Your task to perform on an android device: Show the shopping cart on target. Add "logitech g502" to the cart on target, then select checkout. Image 0: 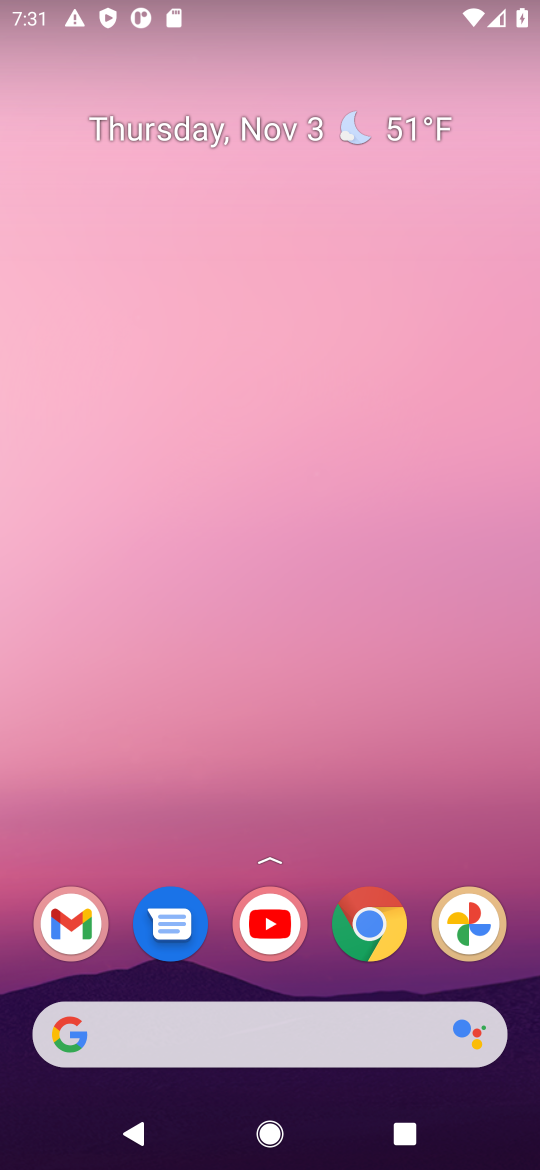
Step 0: drag from (222, 979) to (275, 70)
Your task to perform on an android device: Show the shopping cart on target. Add "logitech g502" to the cart on target, then select checkout. Image 1: 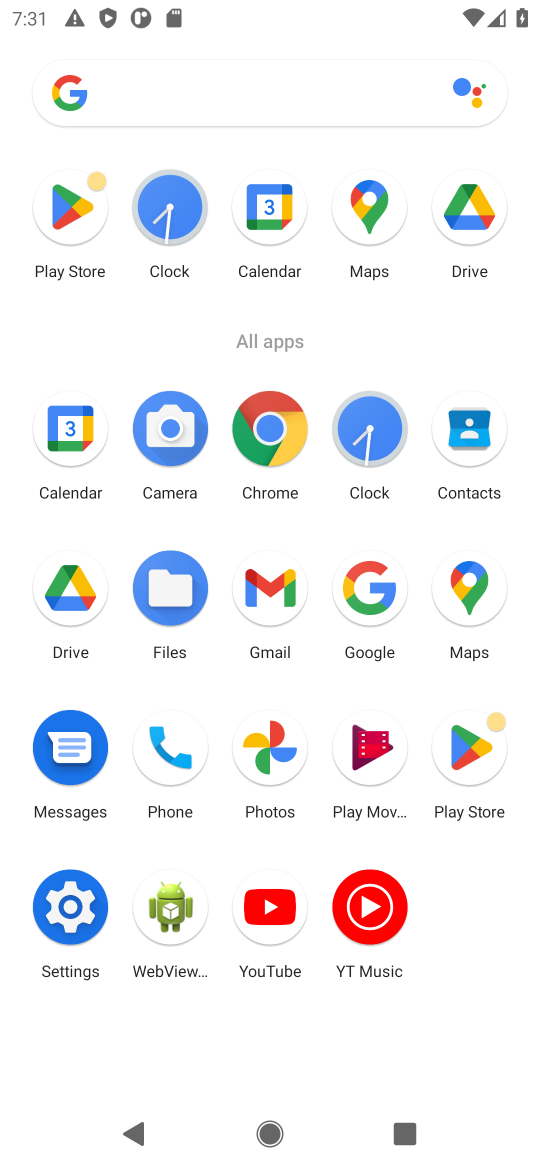
Step 1: click (375, 594)
Your task to perform on an android device: Show the shopping cart on target. Add "logitech g502" to the cart on target, then select checkout. Image 2: 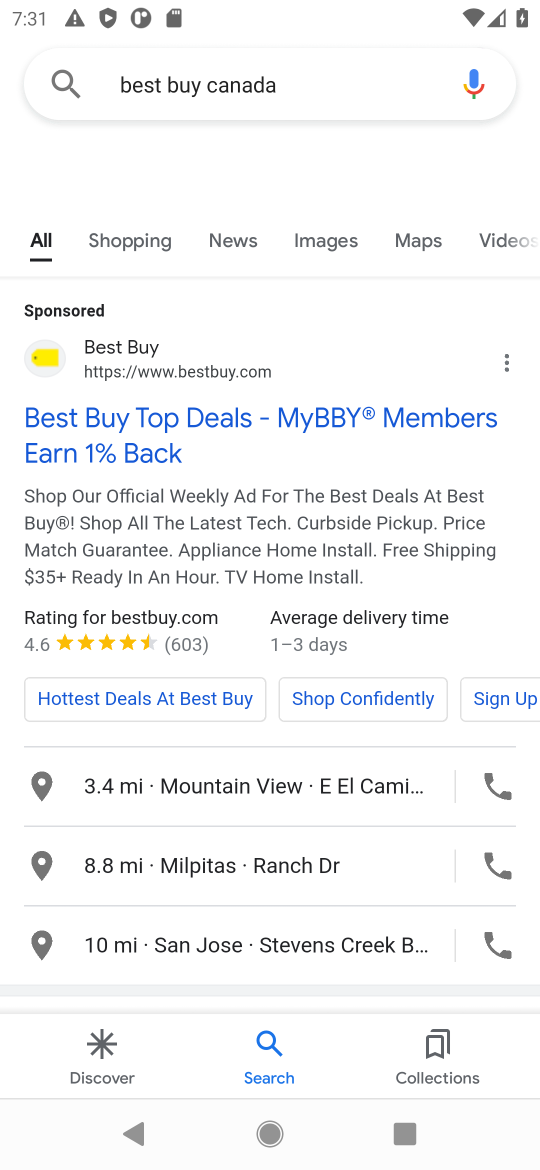
Step 2: click (273, 81)
Your task to perform on an android device: Show the shopping cart on target. Add "logitech g502" to the cart on target, then select checkout. Image 3: 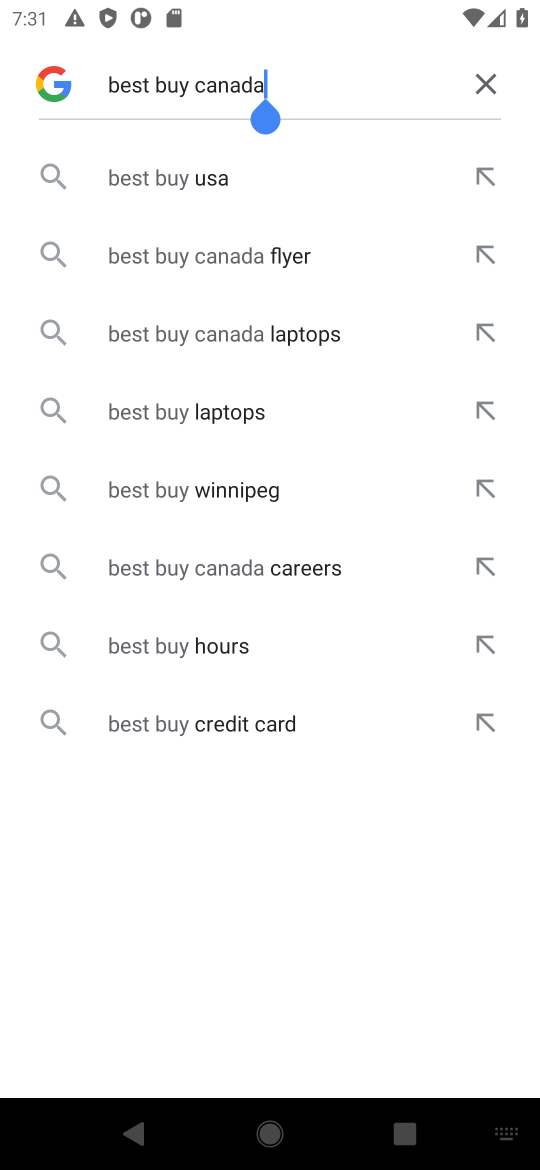
Step 3: click (486, 85)
Your task to perform on an android device: Show the shopping cart on target. Add "logitech g502" to the cart on target, then select checkout. Image 4: 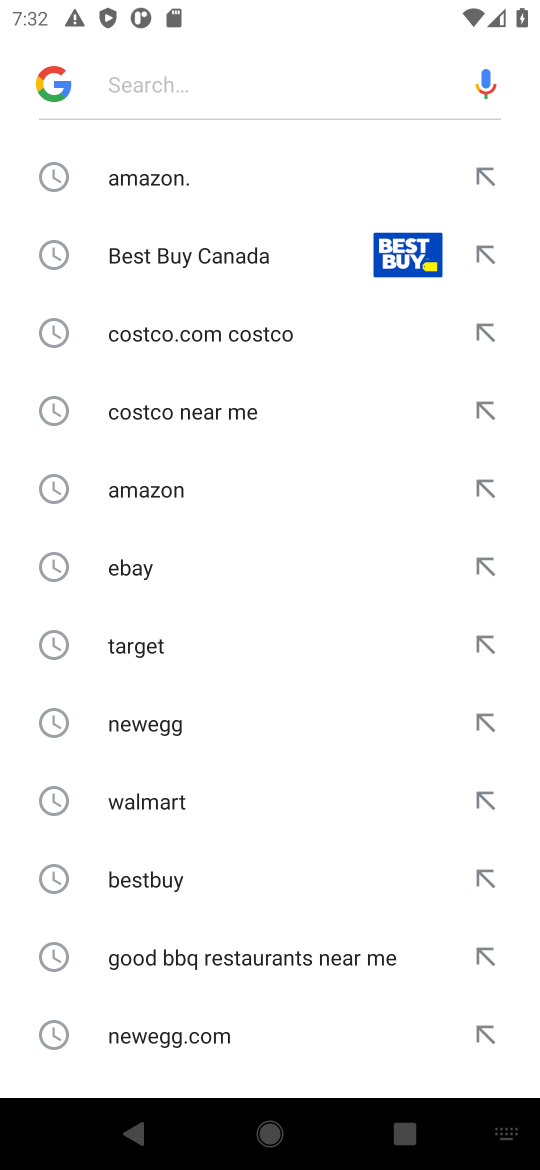
Step 4: click (217, 84)
Your task to perform on an android device: Show the shopping cart on target. Add "logitech g502" to the cart on target, then select checkout. Image 5: 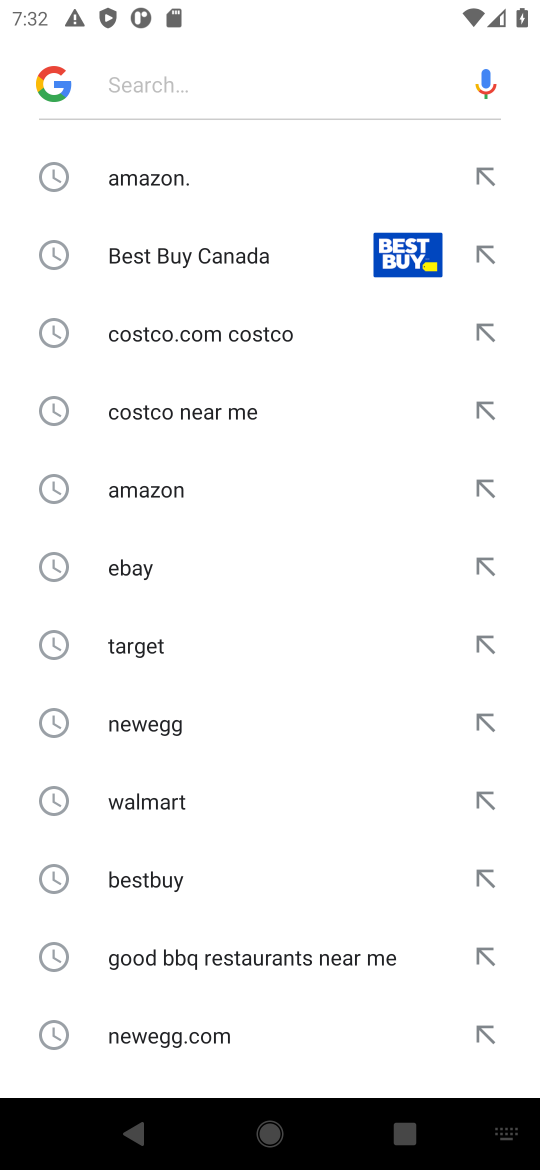
Step 5: type "target "
Your task to perform on an android device: Show the shopping cart on target. Add "logitech g502" to the cart on target, then select checkout. Image 6: 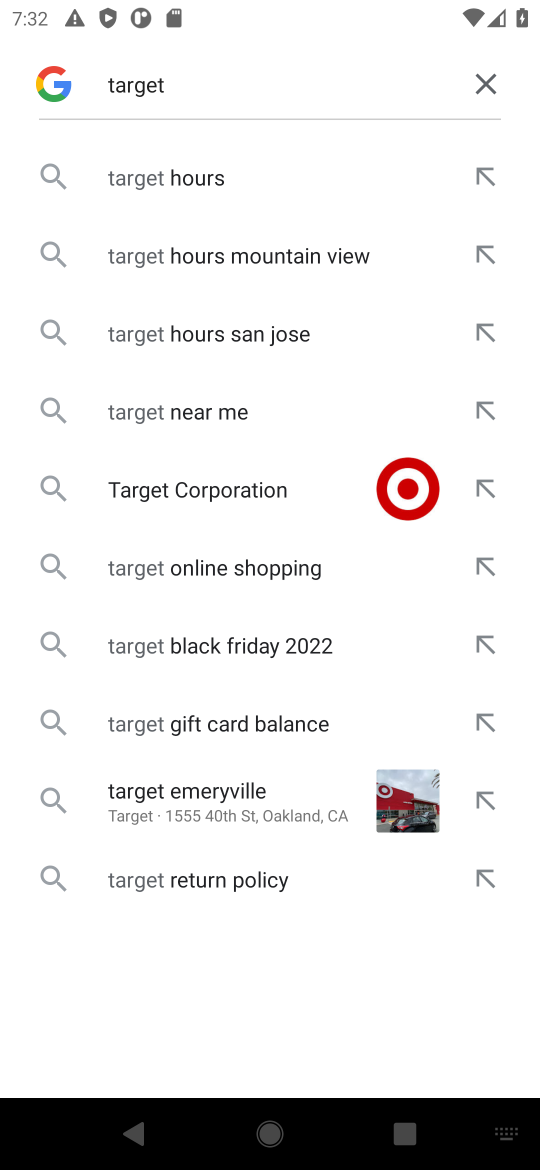
Step 6: click (156, 154)
Your task to perform on an android device: Show the shopping cart on target. Add "logitech g502" to the cart on target, then select checkout. Image 7: 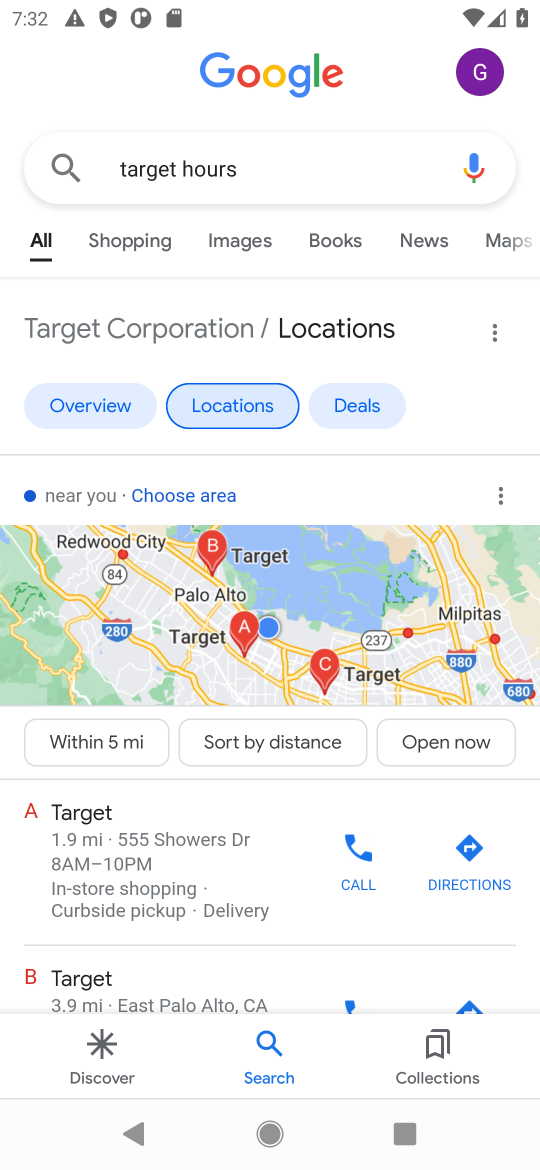
Step 7: drag from (259, 965) to (315, 121)
Your task to perform on an android device: Show the shopping cart on target. Add "logitech g502" to the cart on target, then select checkout. Image 8: 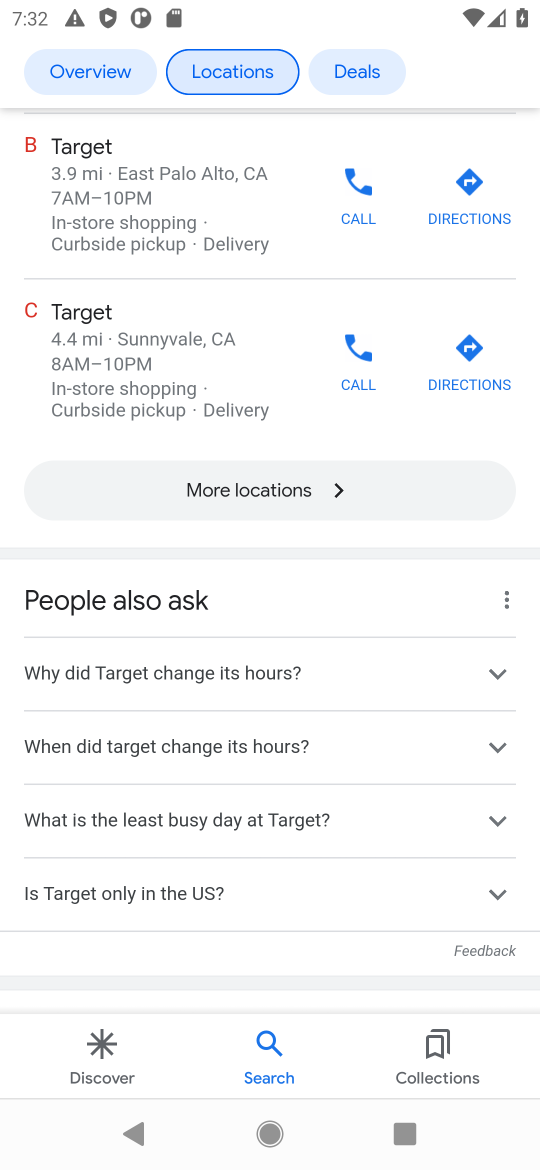
Step 8: drag from (220, 890) to (317, 164)
Your task to perform on an android device: Show the shopping cart on target. Add "logitech g502" to the cart on target, then select checkout. Image 9: 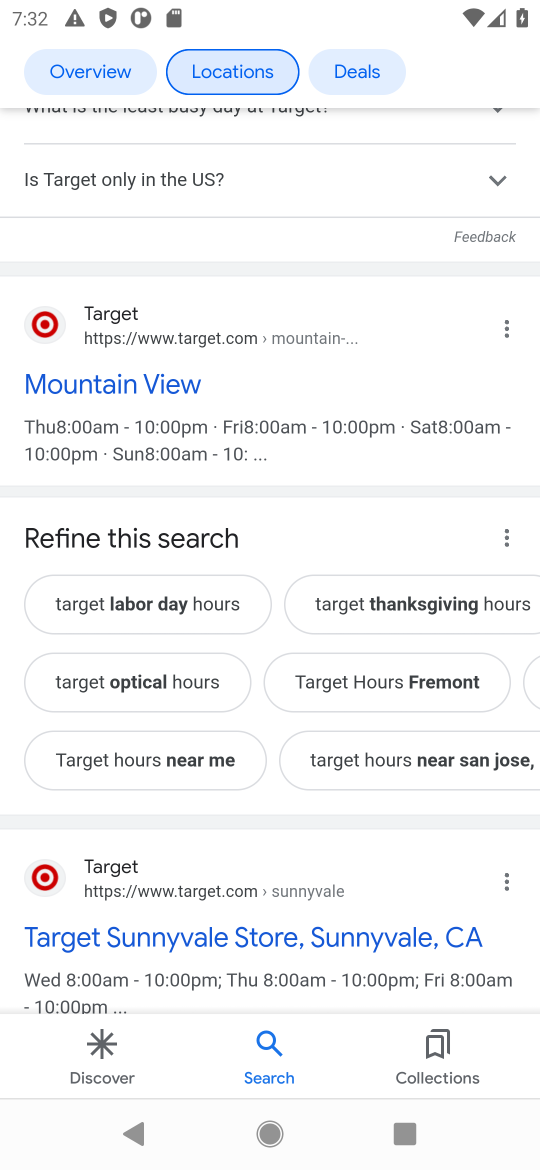
Step 9: click (43, 326)
Your task to perform on an android device: Show the shopping cart on target. Add "logitech g502" to the cart on target, then select checkout. Image 10: 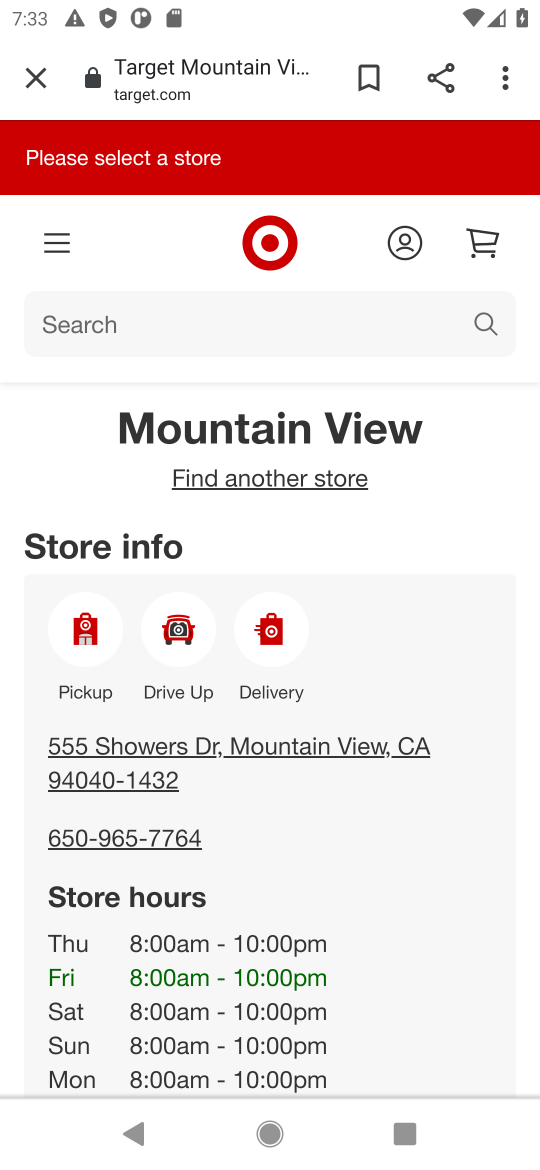
Step 10: click (199, 317)
Your task to perform on an android device: Show the shopping cart on target. Add "logitech g502" to the cart on target, then select checkout. Image 11: 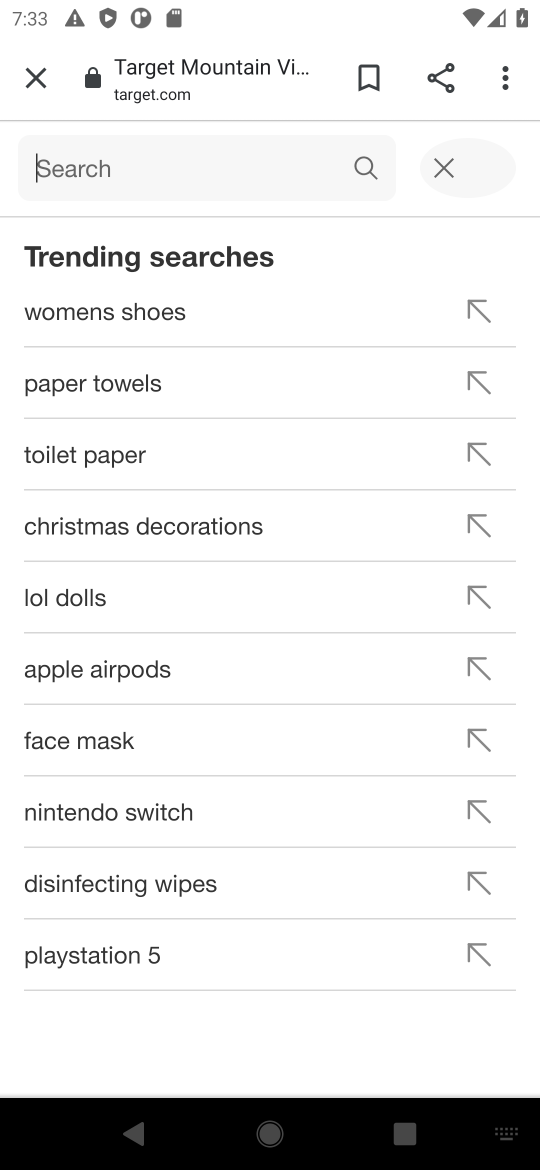
Step 11: type "logitech g502 "
Your task to perform on an android device: Show the shopping cart on target. Add "logitech g502" to the cart on target, then select checkout. Image 12: 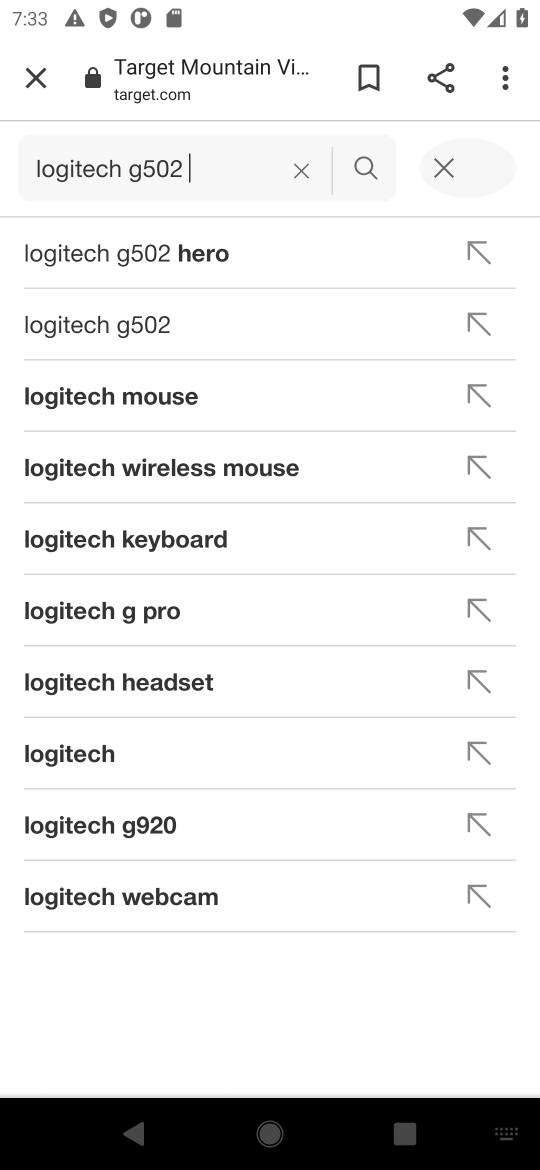
Step 12: click (125, 316)
Your task to perform on an android device: Show the shopping cart on target. Add "logitech g502" to the cart on target, then select checkout. Image 13: 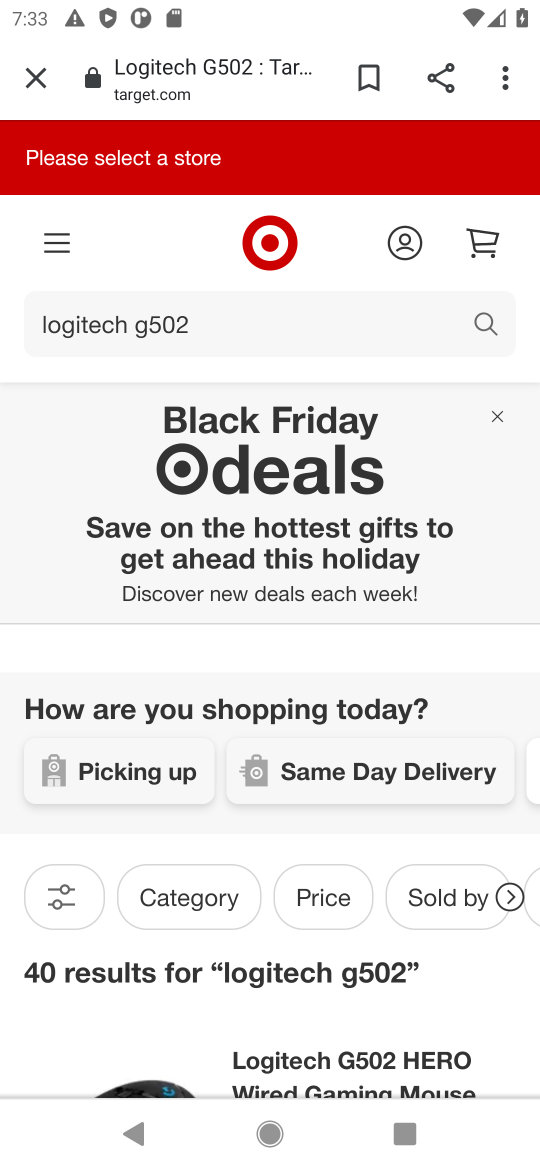
Step 13: drag from (236, 1056) to (324, 283)
Your task to perform on an android device: Show the shopping cart on target. Add "logitech g502" to the cart on target, then select checkout. Image 14: 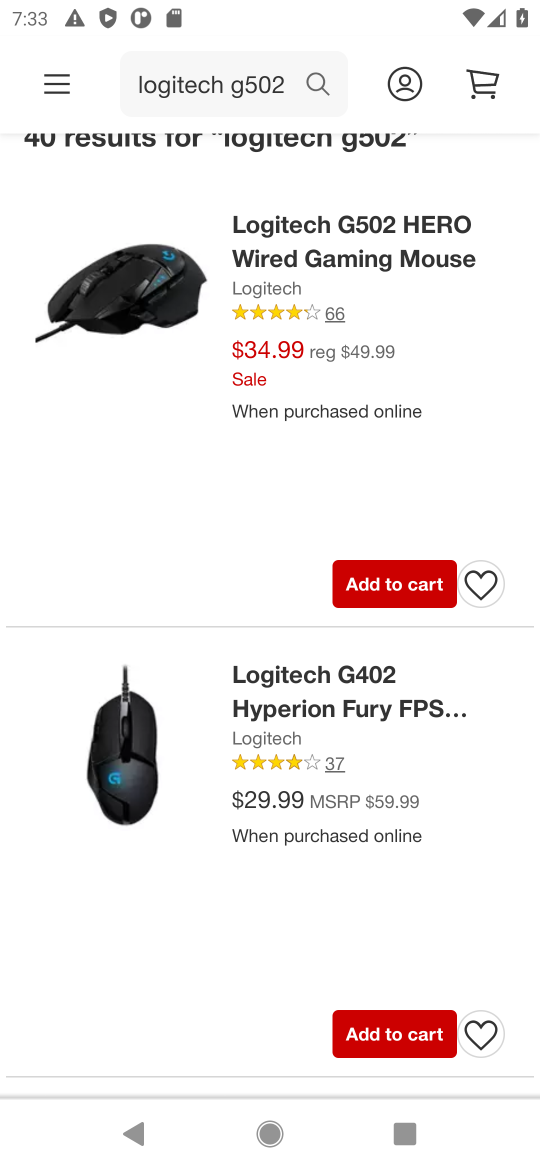
Step 14: drag from (237, 974) to (365, 1158)
Your task to perform on an android device: Show the shopping cart on target. Add "logitech g502" to the cart on target, then select checkout. Image 15: 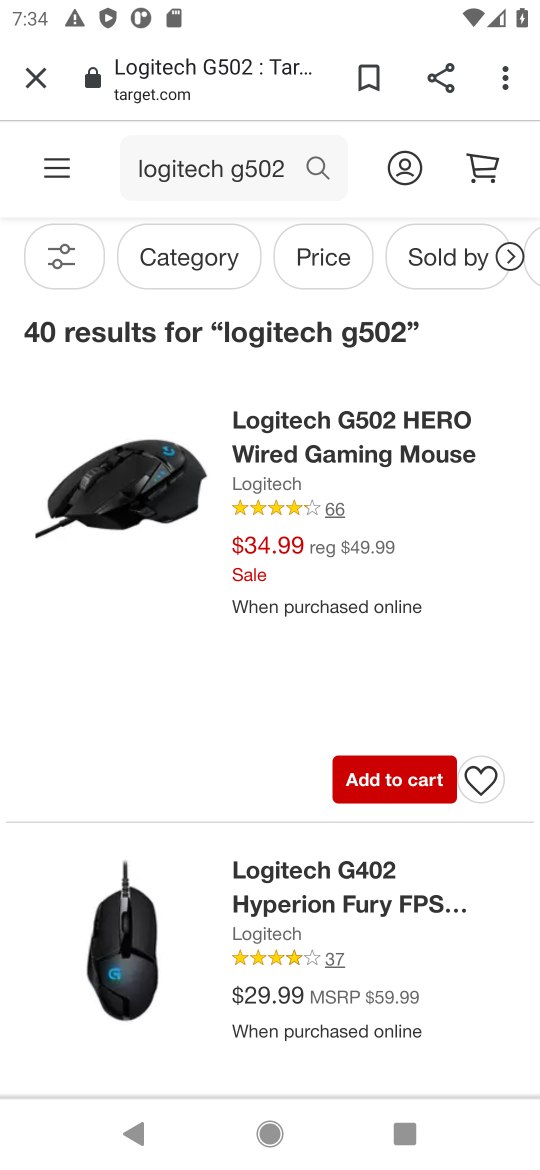
Step 15: drag from (357, 340) to (299, 1024)
Your task to perform on an android device: Show the shopping cart on target. Add "logitech g502" to the cart on target, then select checkout. Image 16: 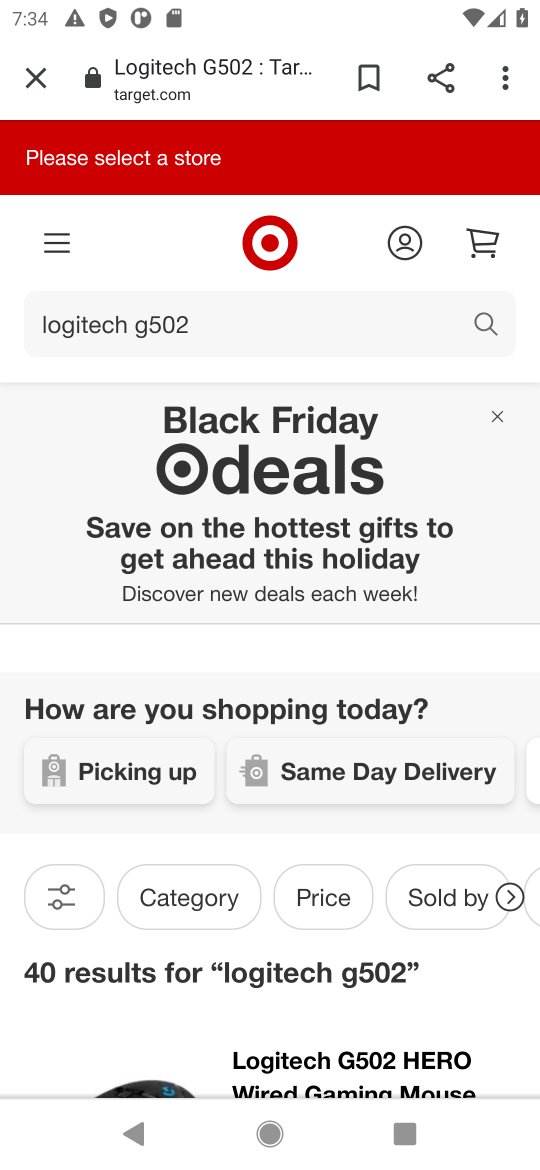
Step 16: drag from (330, 950) to (363, 401)
Your task to perform on an android device: Show the shopping cart on target. Add "logitech g502" to the cart on target, then select checkout. Image 17: 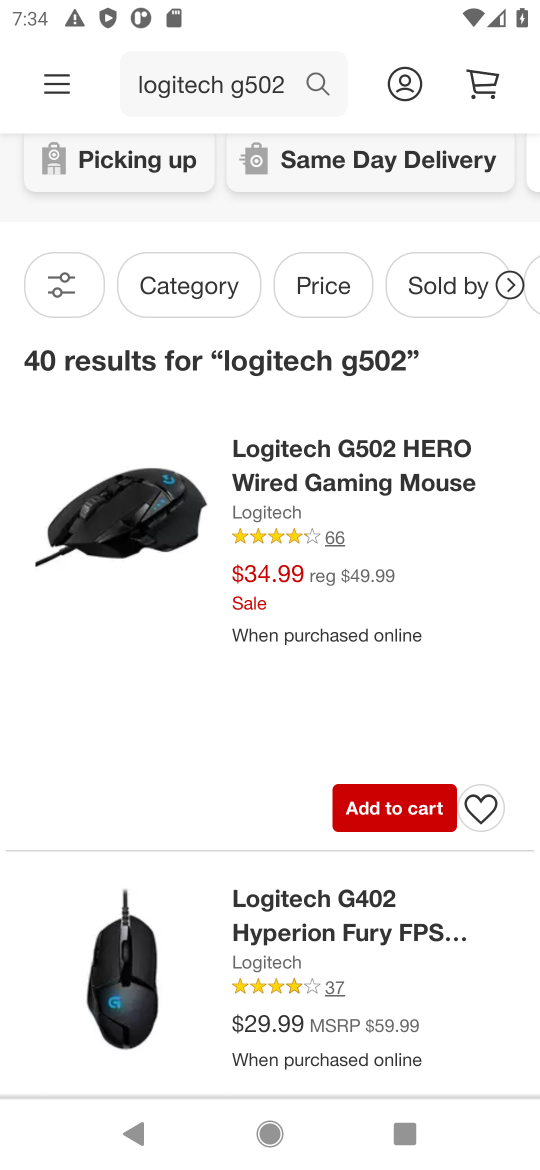
Step 17: click (410, 809)
Your task to perform on an android device: Show the shopping cart on target. Add "logitech g502" to the cart on target, then select checkout. Image 18: 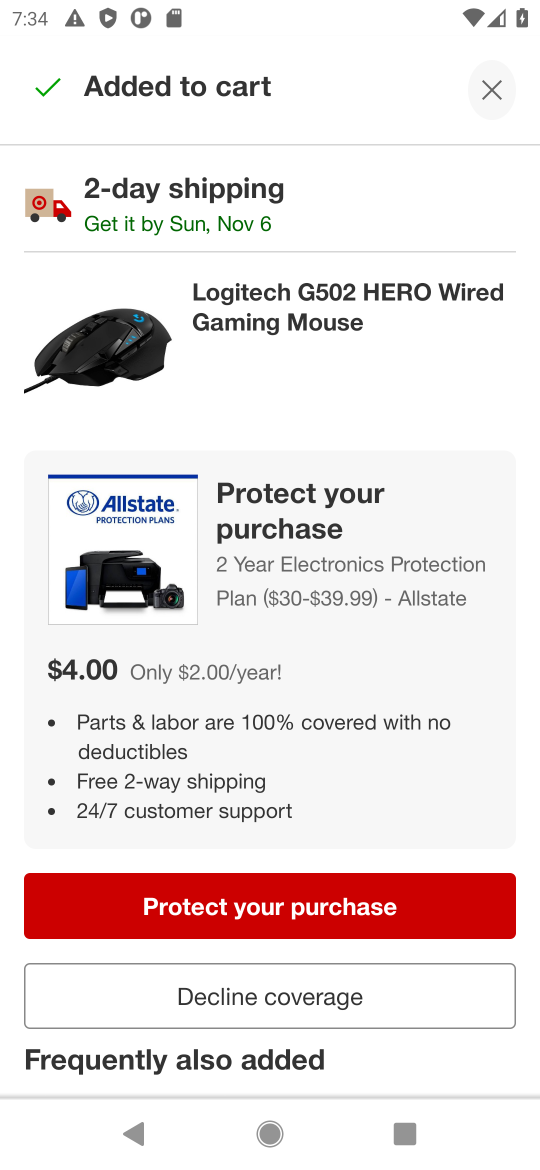
Step 18: task complete